Your task to perform on an android device: toggle airplane mode Image 0: 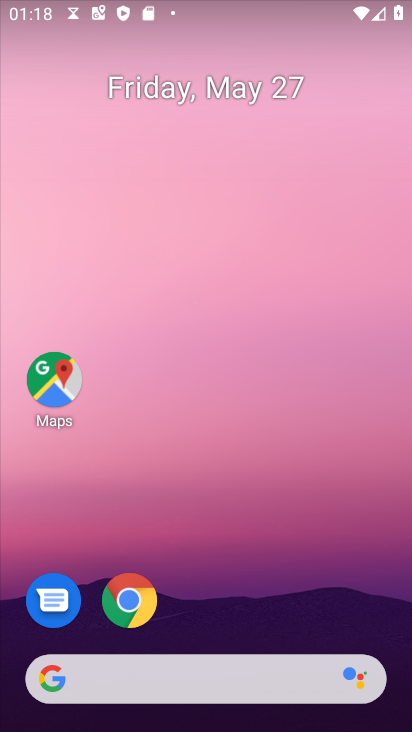
Step 0: drag from (235, 520) to (221, 155)
Your task to perform on an android device: toggle airplane mode Image 1: 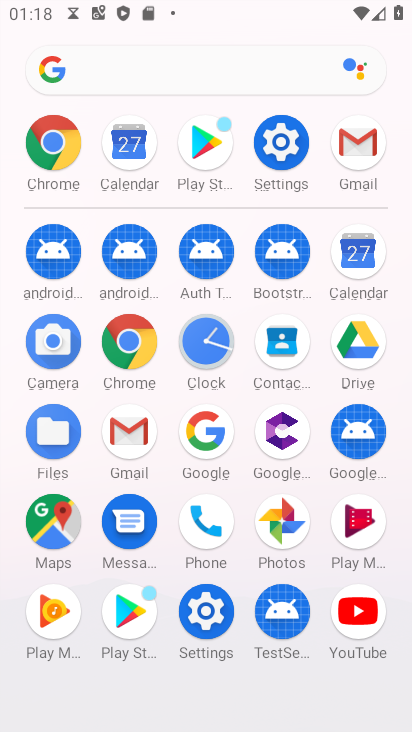
Step 1: click (262, 155)
Your task to perform on an android device: toggle airplane mode Image 2: 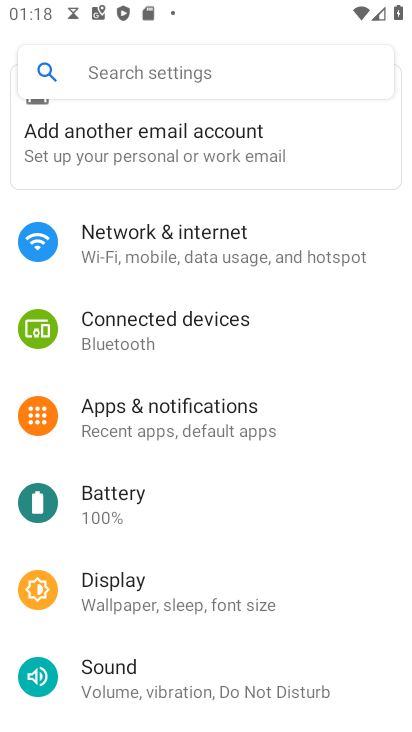
Step 2: click (176, 262)
Your task to perform on an android device: toggle airplane mode Image 3: 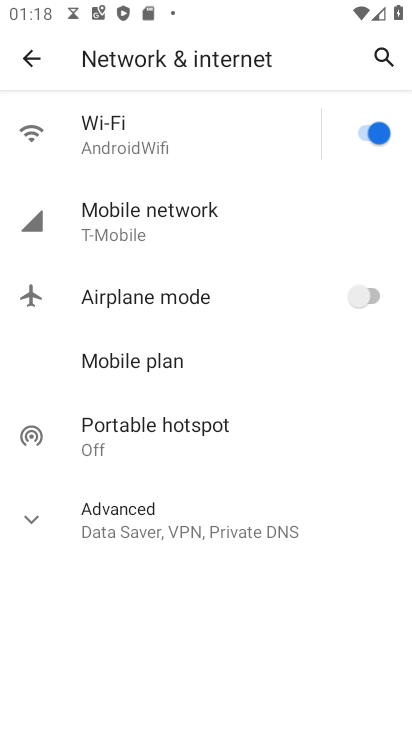
Step 3: click (362, 291)
Your task to perform on an android device: toggle airplane mode Image 4: 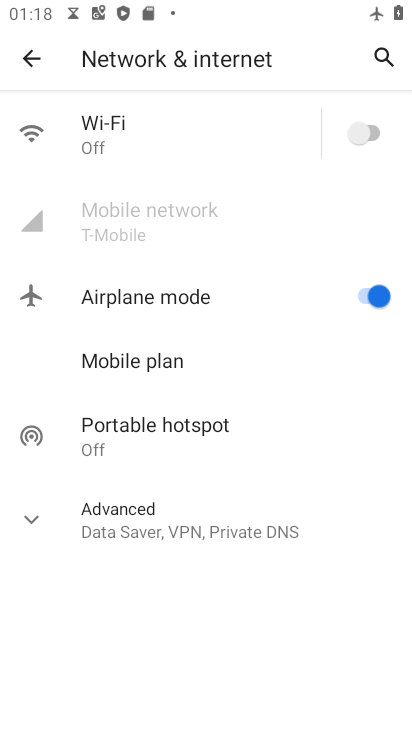
Step 4: task complete